Your task to perform on an android device: Go to Google Image 0: 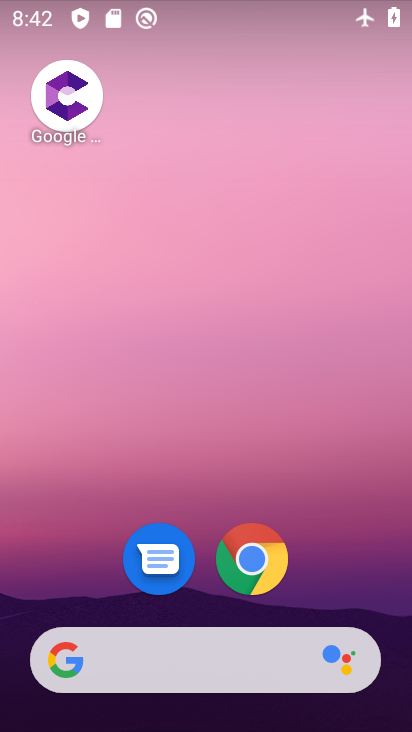
Step 0: drag from (313, 585) to (280, 8)
Your task to perform on an android device: Go to Google Image 1: 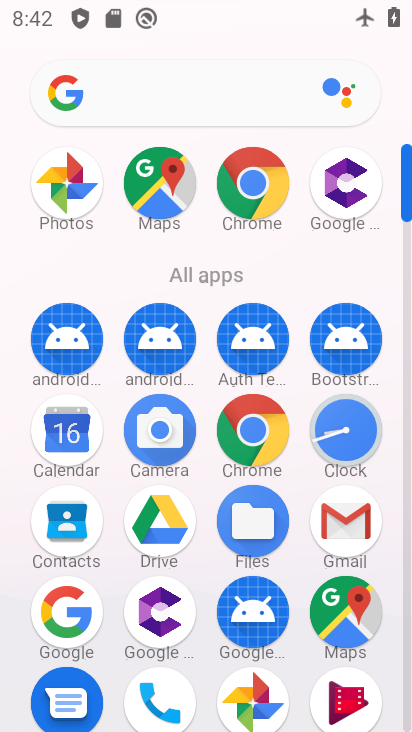
Step 1: click (55, 618)
Your task to perform on an android device: Go to Google Image 2: 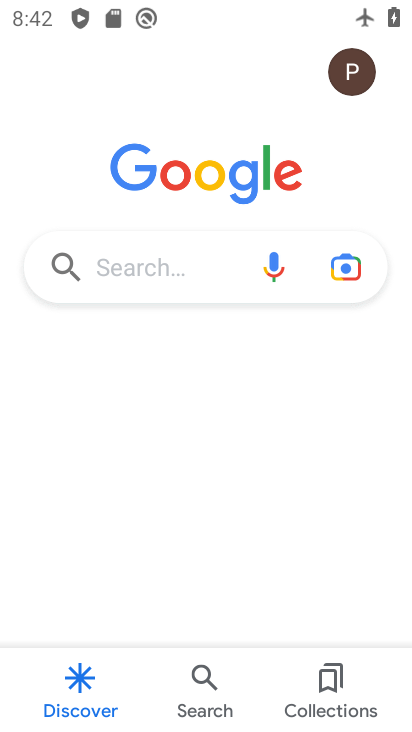
Step 2: task complete